Your task to perform on an android device: clear history in the chrome app Image 0: 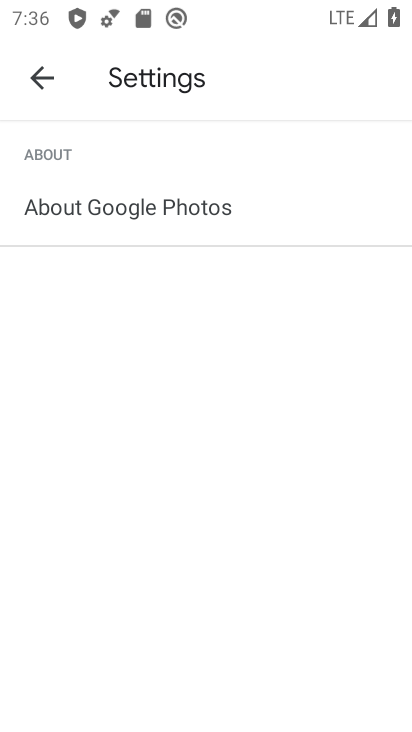
Step 0: press home button
Your task to perform on an android device: clear history in the chrome app Image 1: 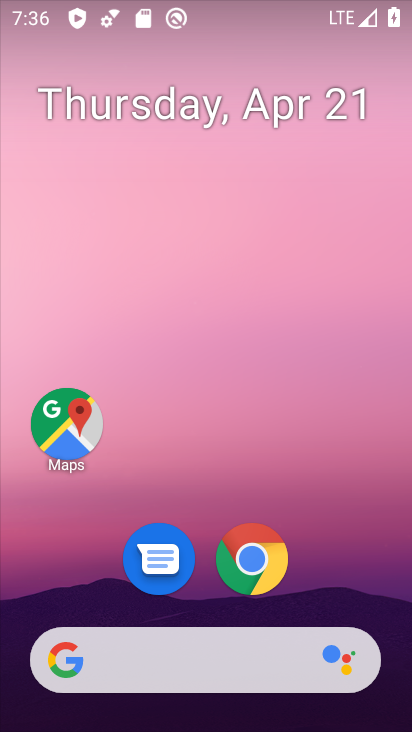
Step 1: drag from (369, 565) to (290, 214)
Your task to perform on an android device: clear history in the chrome app Image 2: 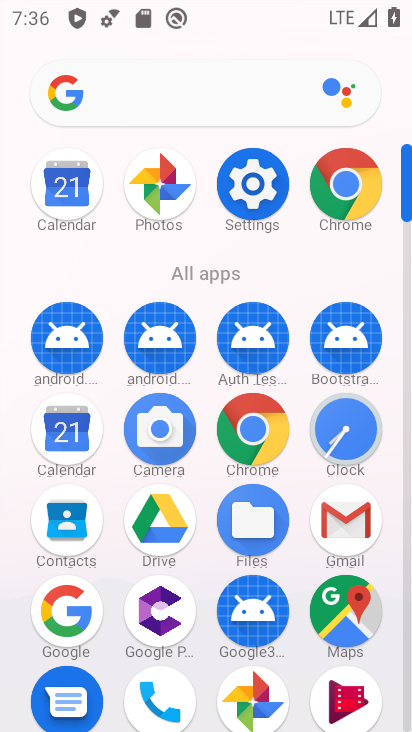
Step 2: click (265, 449)
Your task to perform on an android device: clear history in the chrome app Image 3: 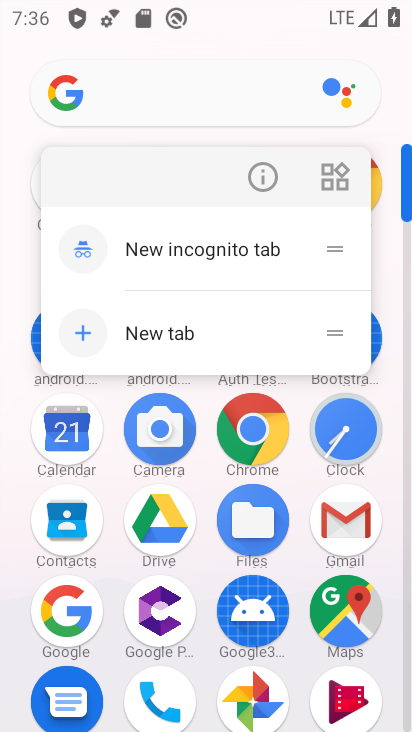
Step 3: click (264, 446)
Your task to perform on an android device: clear history in the chrome app Image 4: 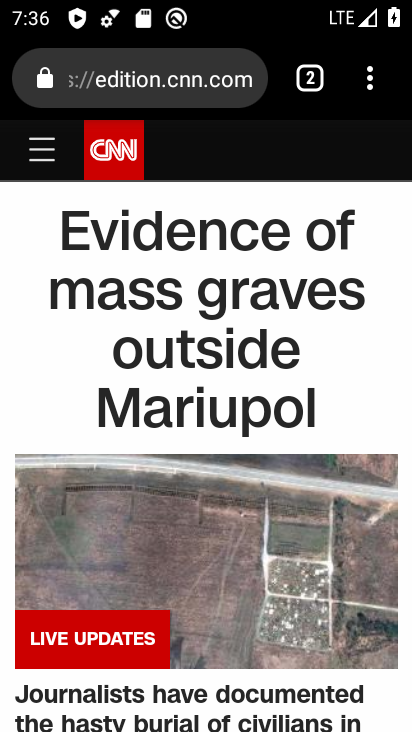
Step 4: drag from (378, 88) to (79, 425)
Your task to perform on an android device: clear history in the chrome app Image 5: 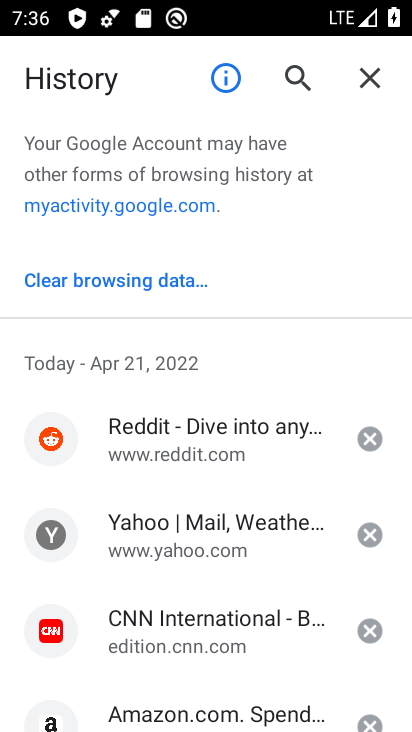
Step 5: click (143, 274)
Your task to perform on an android device: clear history in the chrome app Image 6: 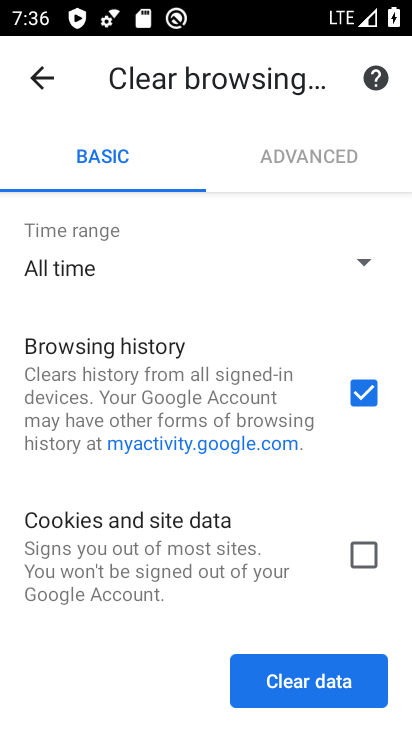
Step 6: click (282, 680)
Your task to perform on an android device: clear history in the chrome app Image 7: 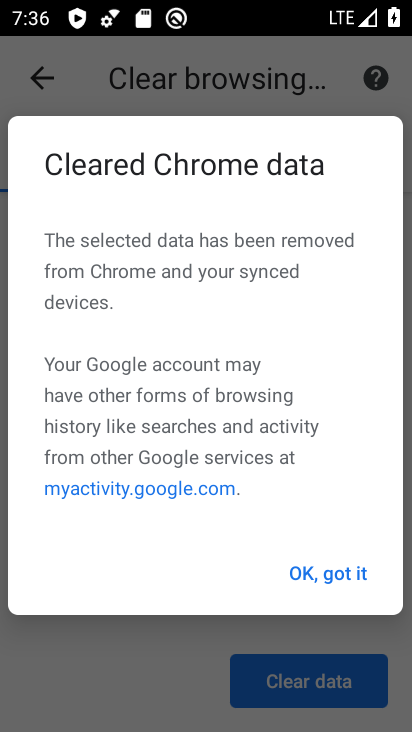
Step 7: click (325, 582)
Your task to perform on an android device: clear history in the chrome app Image 8: 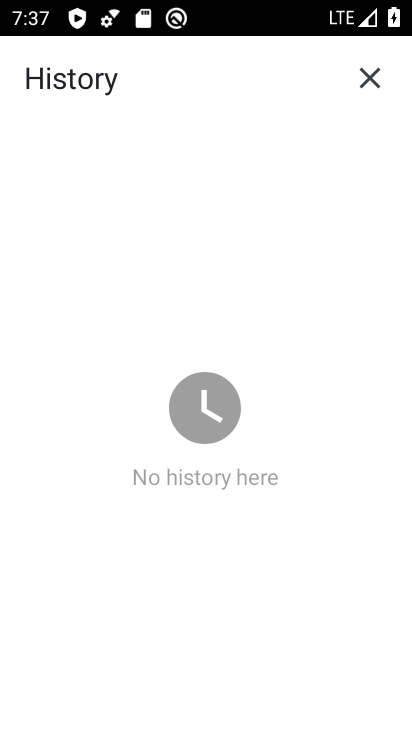
Step 8: task complete